Your task to perform on an android device: open app "Etsy: Buy & Sell Unique Items" (install if not already installed) and go to login screen Image 0: 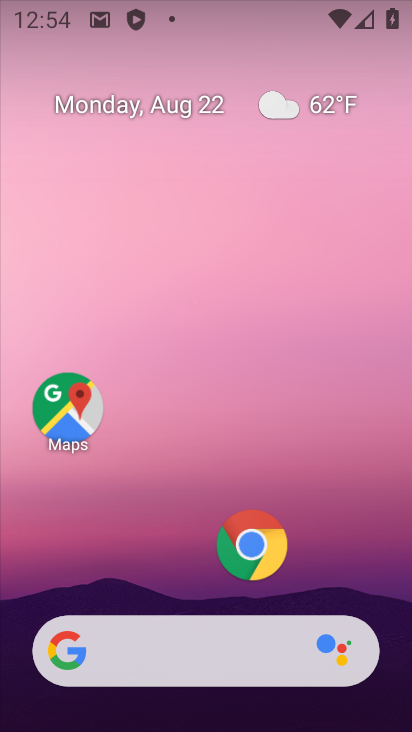
Step 0: drag from (124, 553) to (160, 73)
Your task to perform on an android device: open app "Etsy: Buy & Sell Unique Items" (install if not already installed) and go to login screen Image 1: 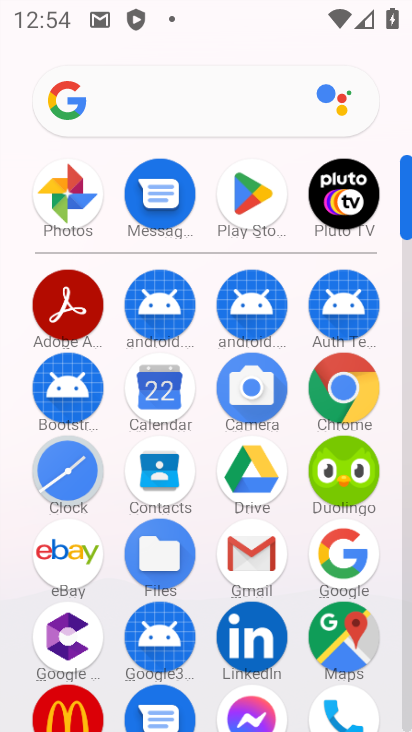
Step 1: click (246, 192)
Your task to perform on an android device: open app "Etsy: Buy & Sell Unique Items" (install if not already installed) and go to login screen Image 2: 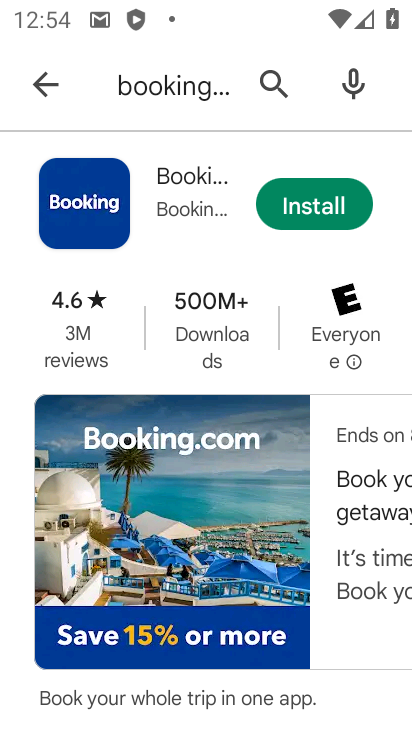
Step 2: click (259, 78)
Your task to perform on an android device: open app "Etsy: Buy & Sell Unique Items" (install if not already installed) and go to login screen Image 3: 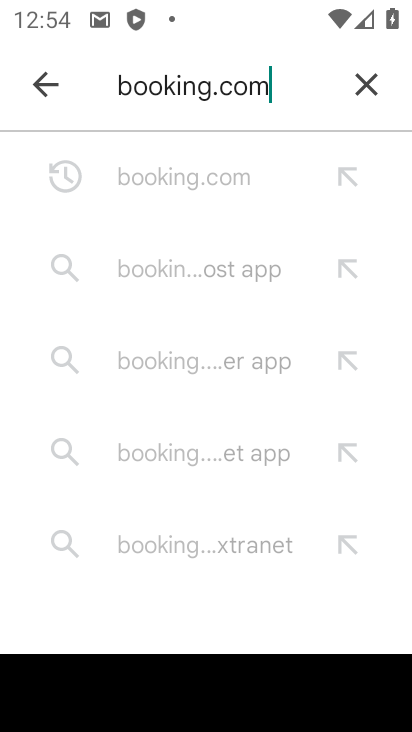
Step 3: click (369, 77)
Your task to perform on an android device: open app "Etsy: Buy & Sell Unique Items" (install if not already installed) and go to login screen Image 4: 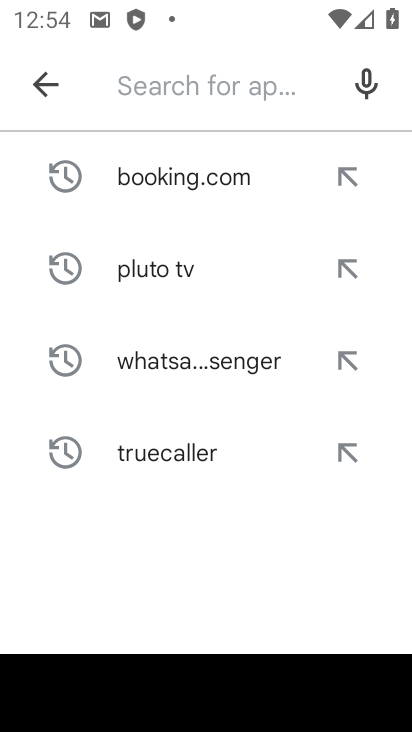
Step 4: click (162, 74)
Your task to perform on an android device: open app "Etsy: Buy & Sell Unique Items" (install if not already installed) and go to login screen Image 5: 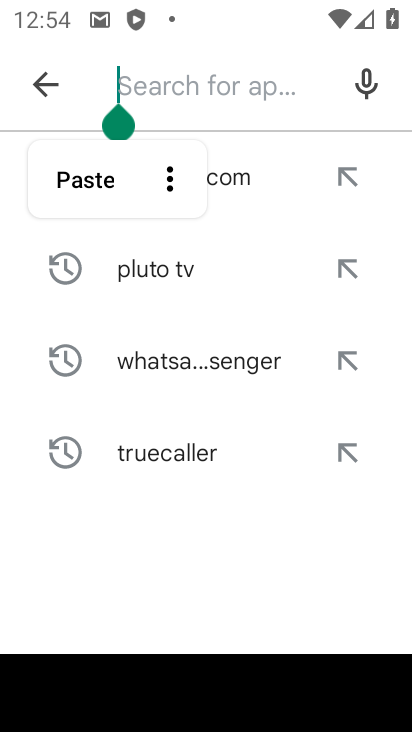
Step 5: type "Etsy"
Your task to perform on an android device: open app "Etsy: Buy & Sell Unique Items" (install if not already installed) and go to login screen Image 6: 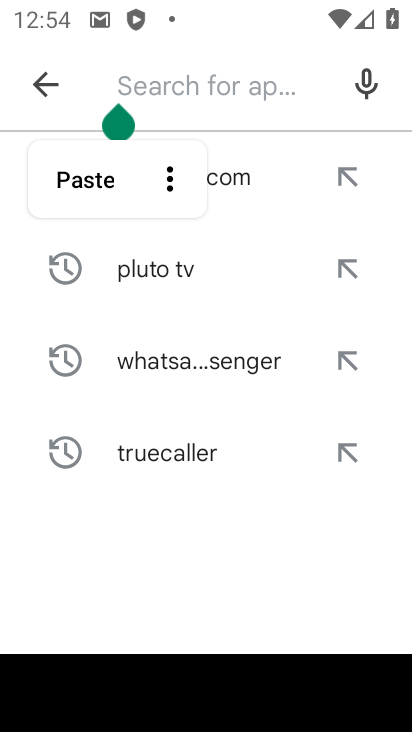
Step 6: click (149, 581)
Your task to perform on an android device: open app "Etsy: Buy & Sell Unique Items" (install if not already installed) and go to login screen Image 7: 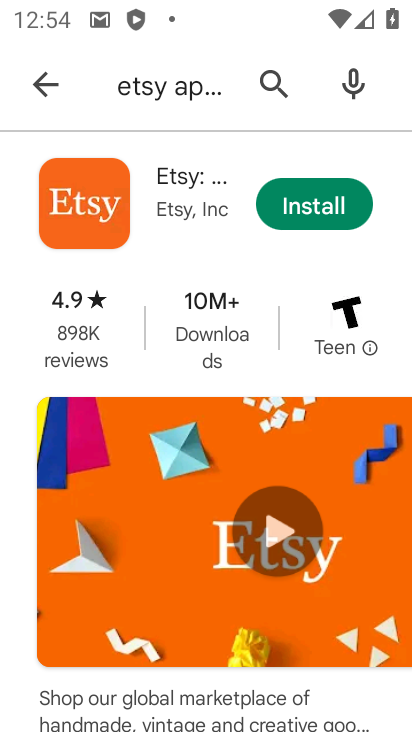
Step 7: click (334, 199)
Your task to perform on an android device: open app "Etsy: Buy & Sell Unique Items" (install if not already installed) and go to login screen Image 8: 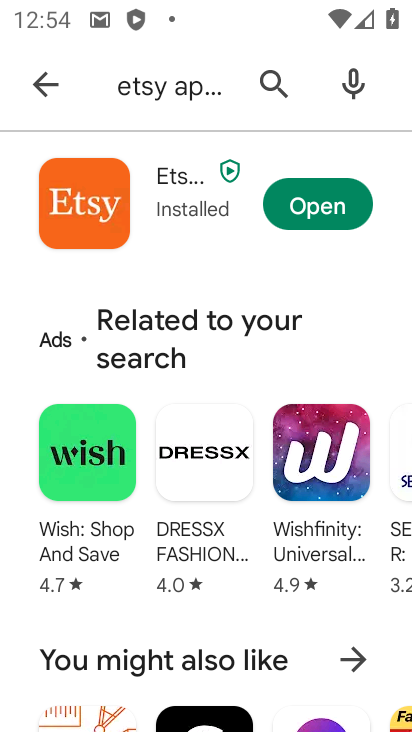
Step 8: drag from (328, 232) to (311, 199)
Your task to perform on an android device: open app "Etsy: Buy & Sell Unique Items" (install if not already installed) and go to login screen Image 9: 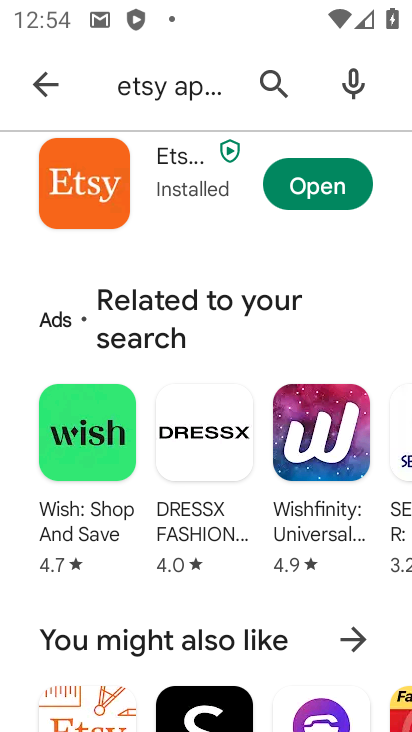
Step 9: click (297, 196)
Your task to perform on an android device: open app "Etsy: Buy & Sell Unique Items" (install if not already installed) and go to login screen Image 10: 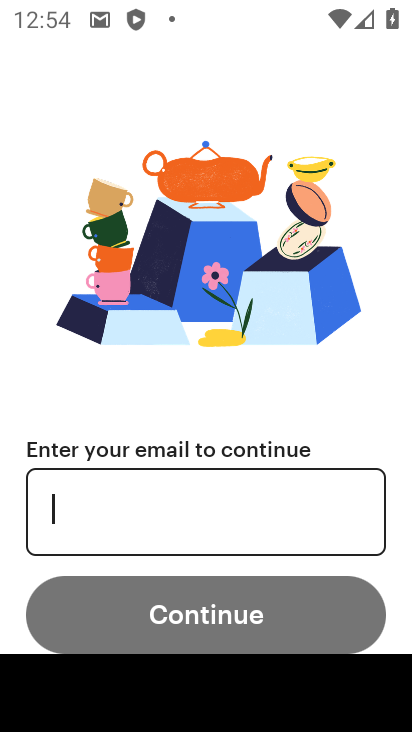
Step 10: task complete